Your task to perform on an android device: Go to ESPN.com Image 0: 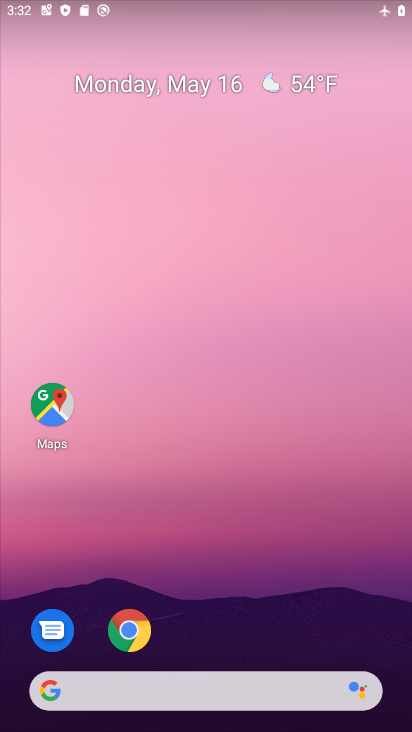
Step 0: click (145, 622)
Your task to perform on an android device: Go to ESPN.com Image 1: 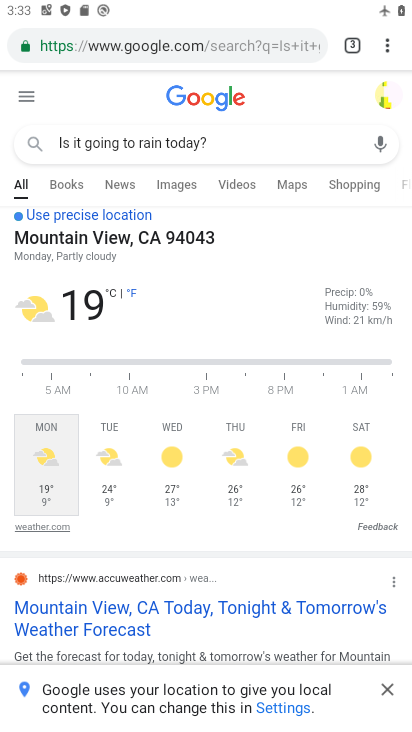
Step 1: click (357, 49)
Your task to perform on an android device: Go to ESPN.com Image 2: 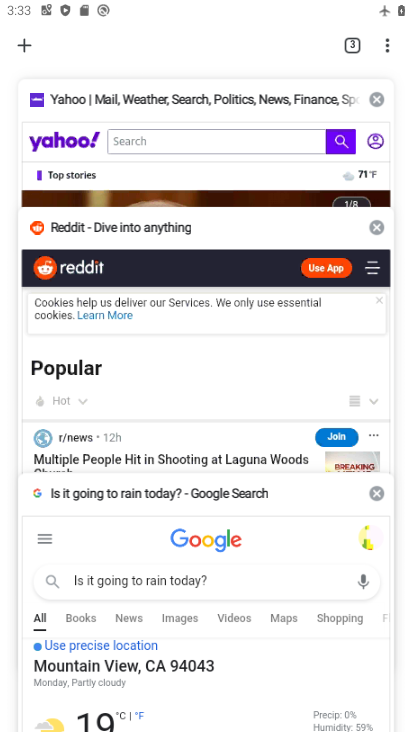
Step 2: click (26, 41)
Your task to perform on an android device: Go to ESPN.com Image 3: 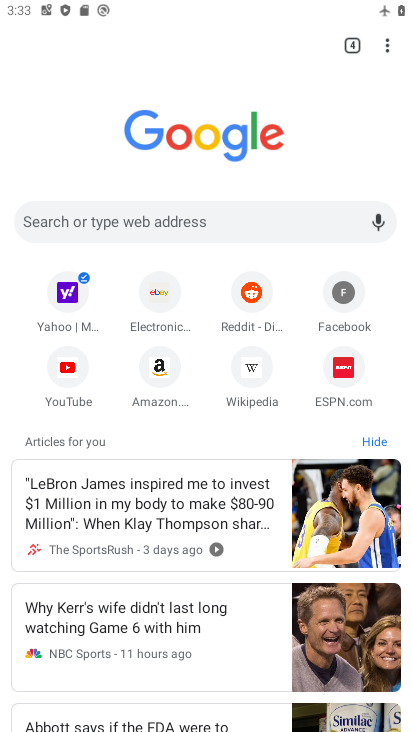
Step 3: click (347, 361)
Your task to perform on an android device: Go to ESPN.com Image 4: 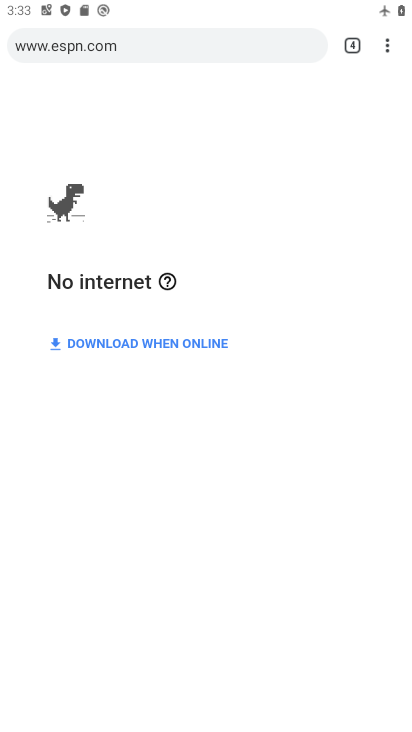
Step 4: task complete